Your task to perform on an android device: snooze an email in the gmail app Image 0: 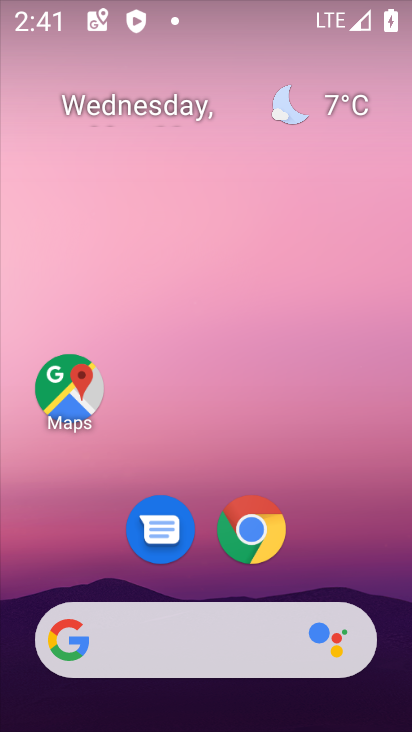
Step 0: press back button
Your task to perform on an android device: snooze an email in the gmail app Image 1: 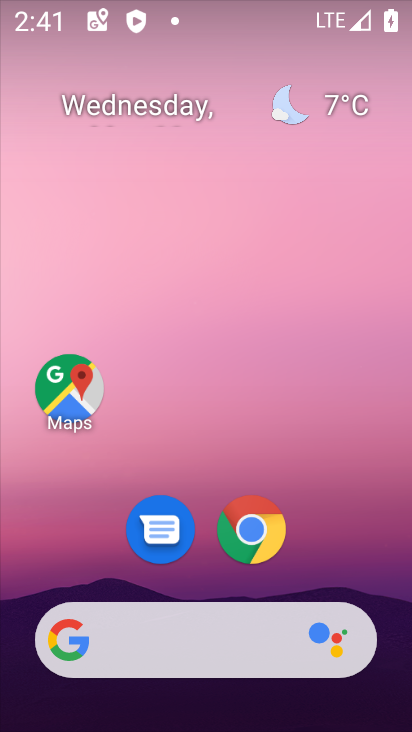
Step 1: drag from (35, 400) to (75, 300)
Your task to perform on an android device: snooze an email in the gmail app Image 2: 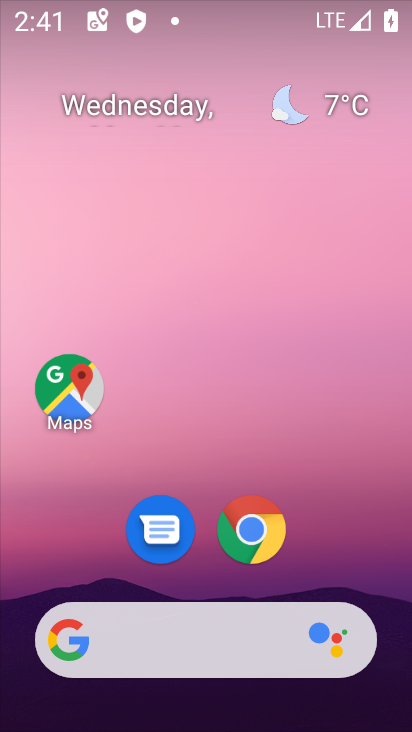
Step 2: drag from (89, 435) to (236, 140)
Your task to perform on an android device: snooze an email in the gmail app Image 3: 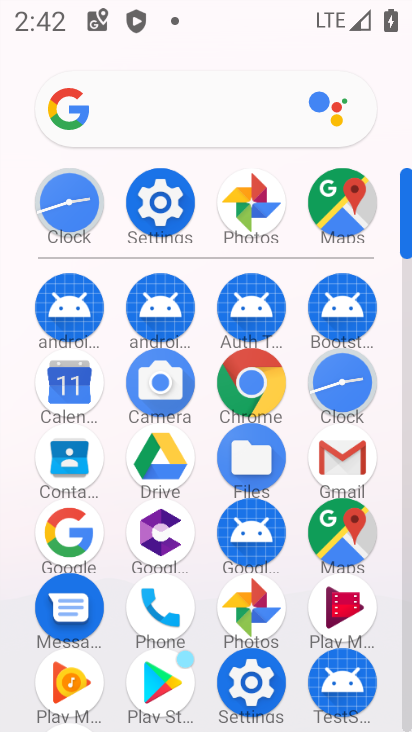
Step 3: click (320, 445)
Your task to perform on an android device: snooze an email in the gmail app Image 4: 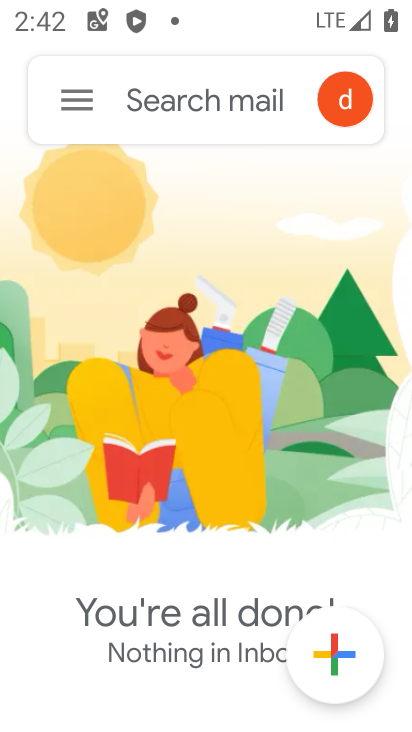
Step 4: click (82, 103)
Your task to perform on an android device: snooze an email in the gmail app Image 5: 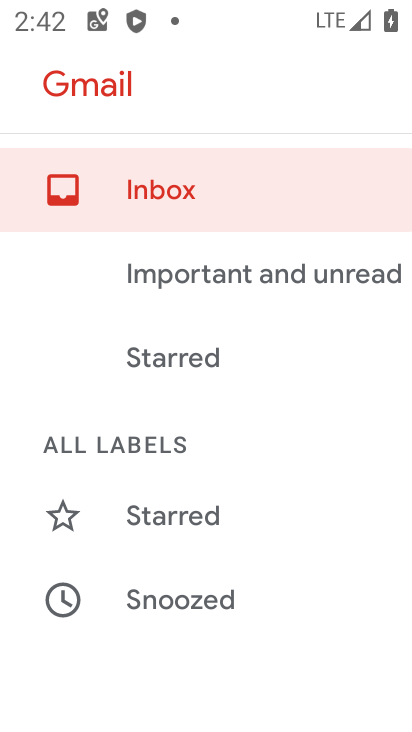
Step 5: click (185, 176)
Your task to perform on an android device: snooze an email in the gmail app Image 6: 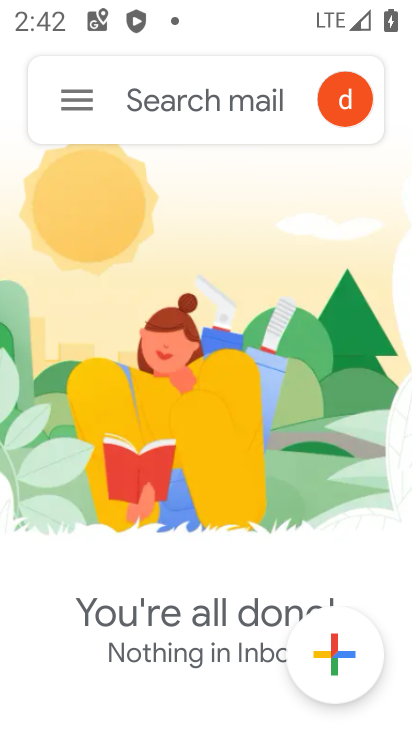
Step 6: task complete